Your task to perform on an android device: toggle pop-ups in chrome Image 0: 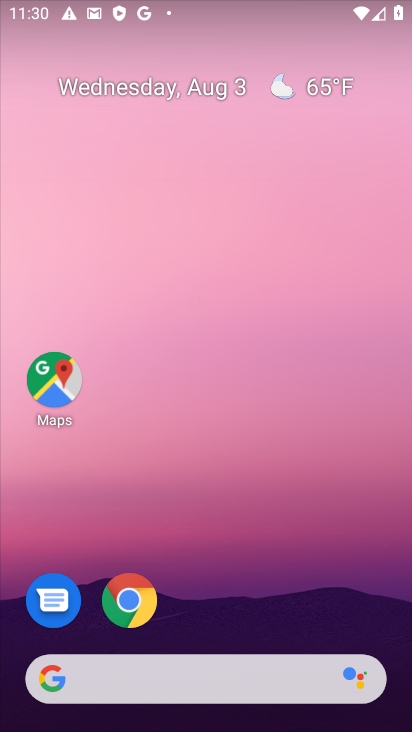
Step 0: drag from (229, 634) to (231, 0)
Your task to perform on an android device: toggle pop-ups in chrome Image 1: 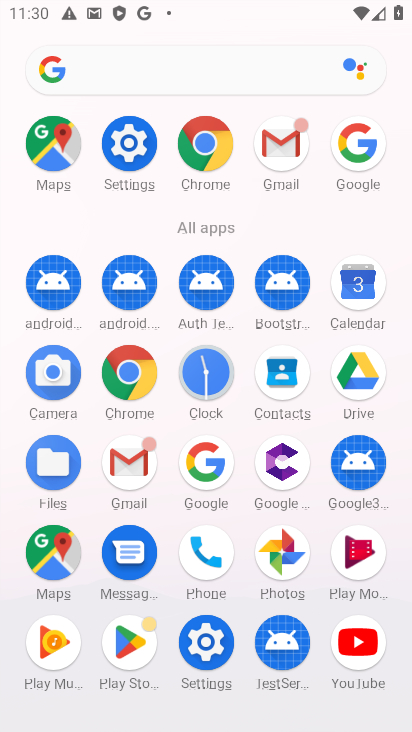
Step 1: click (201, 144)
Your task to perform on an android device: toggle pop-ups in chrome Image 2: 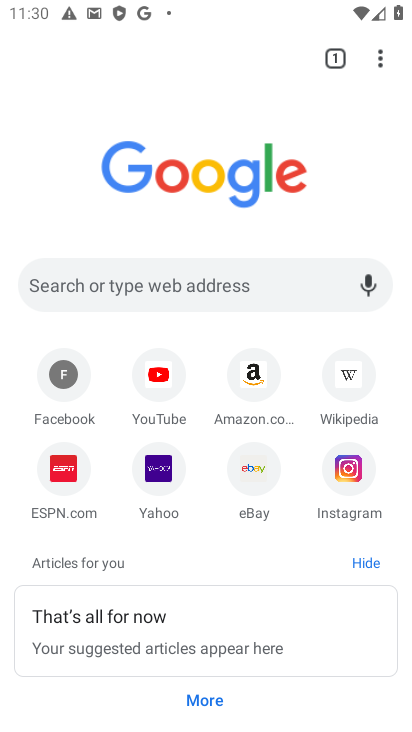
Step 2: click (383, 58)
Your task to perform on an android device: toggle pop-ups in chrome Image 3: 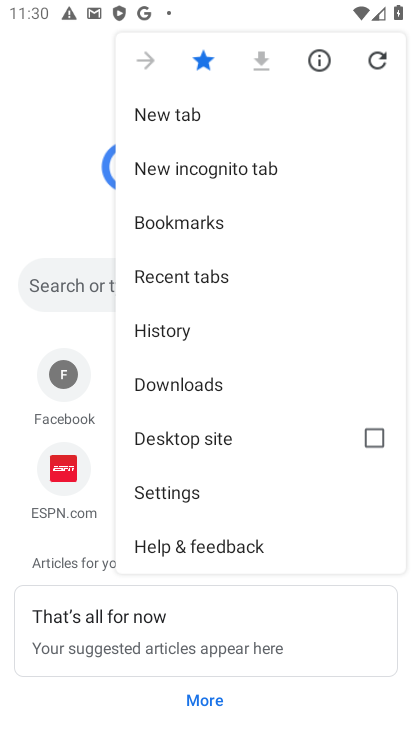
Step 3: click (213, 490)
Your task to perform on an android device: toggle pop-ups in chrome Image 4: 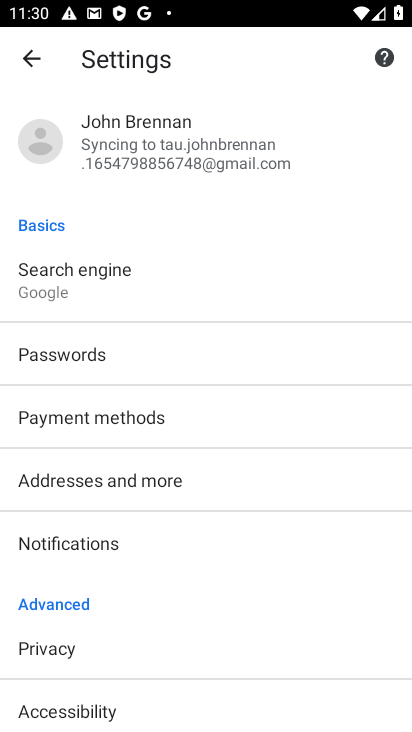
Step 4: drag from (213, 490) to (227, 220)
Your task to perform on an android device: toggle pop-ups in chrome Image 5: 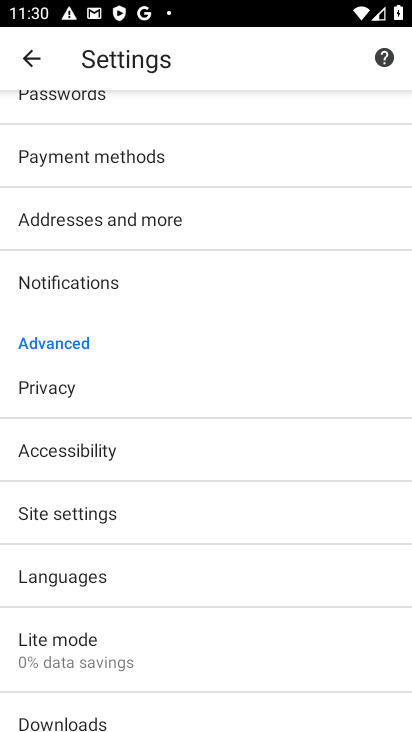
Step 5: click (101, 507)
Your task to perform on an android device: toggle pop-ups in chrome Image 6: 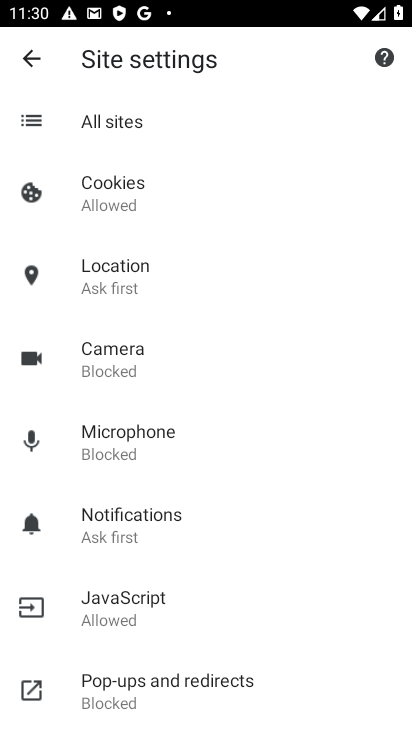
Step 6: click (110, 676)
Your task to perform on an android device: toggle pop-ups in chrome Image 7: 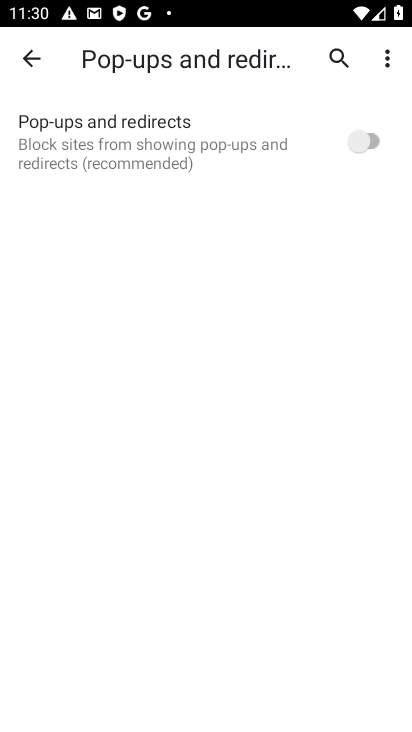
Step 7: click (372, 139)
Your task to perform on an android device: toggle pop-ups in chrome Image 8: 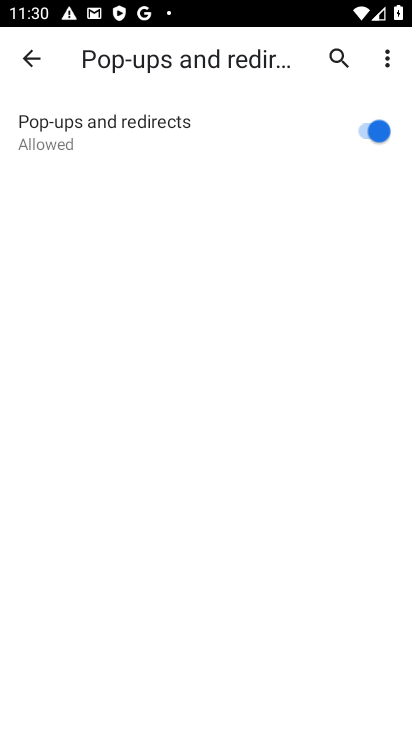
Step 8: task complete